Your task to perform on an android device: all mails in gmail Image 0: 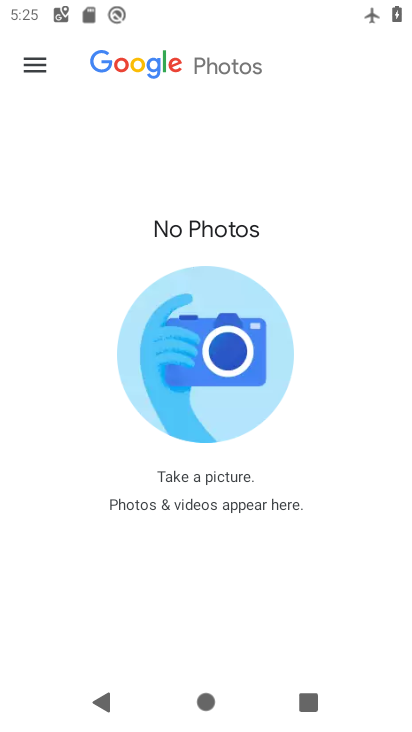
Step 0: press home button
Your task to perform on an android device: all mails in gmail Image 1: 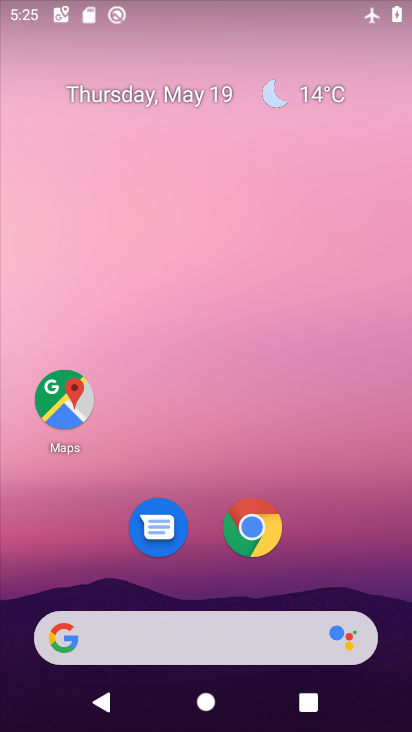
Step 1: drag from (341, 538) to (141, 11)
Your task to perform on an android device: all mails in gmail Image 2: 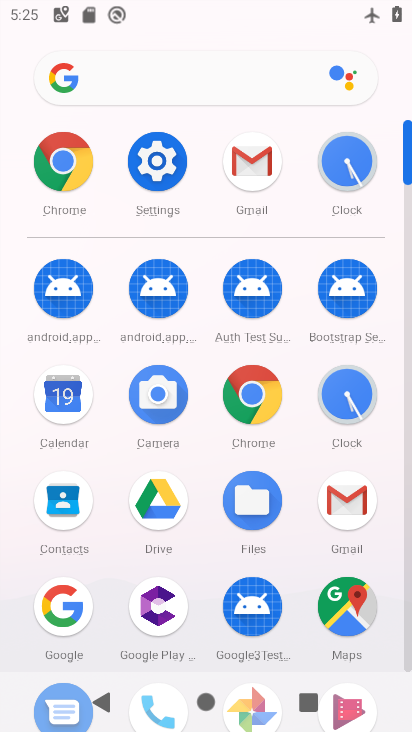
Step 2: click (352, 497)
Your task to perform on an android device: all mails in gmail Image 3: 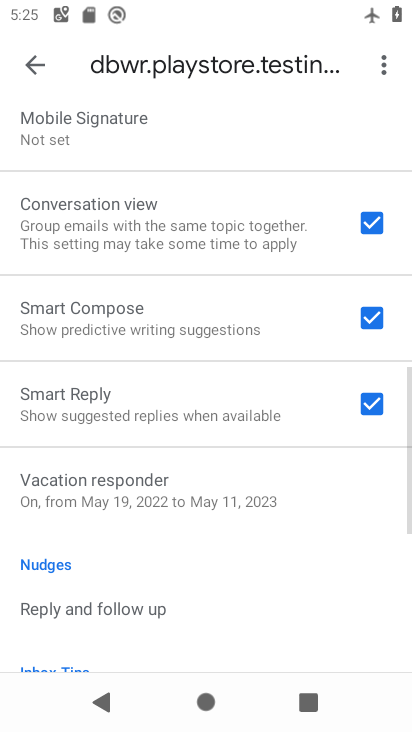
Step 3: click (36, 78)
Your task to perform on an android device: all mails in gmail Image 4: 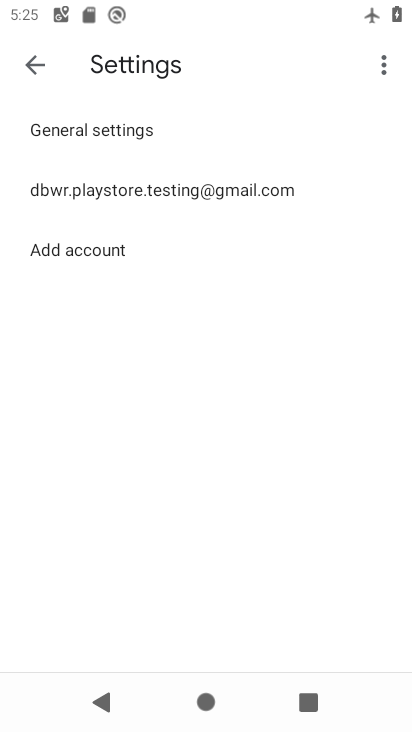
Step 4: click (31, 78)
Your task to perform on an android device: all mails in gmail Image 5: 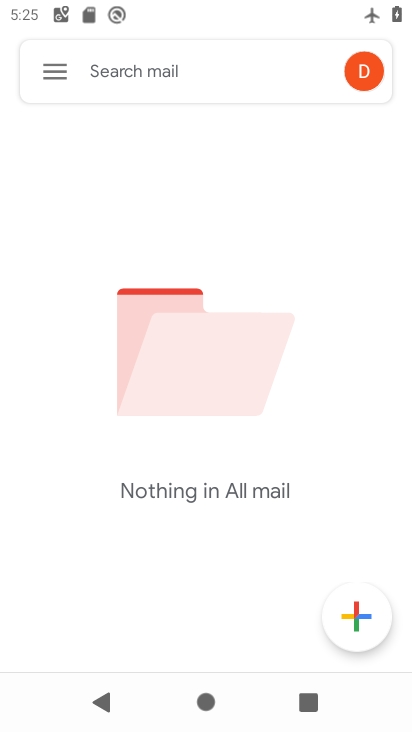
Step 5: click (56, 71)
Your task to perform on an android device: all mails in gmail Image 6: 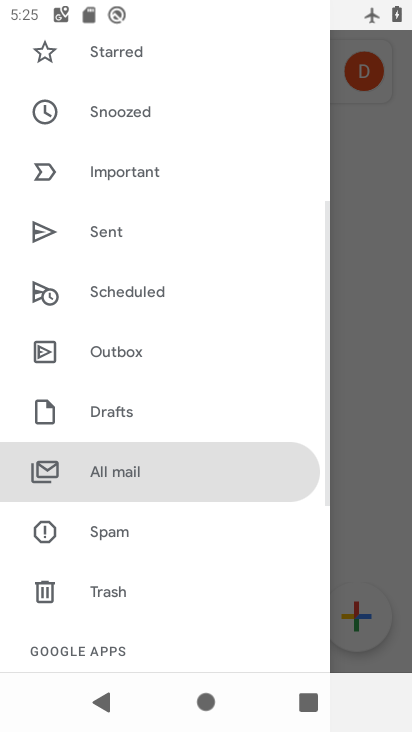
Step 6: click (153, 474)
Your task to perform on an android device: all mails in gmail Image 7: 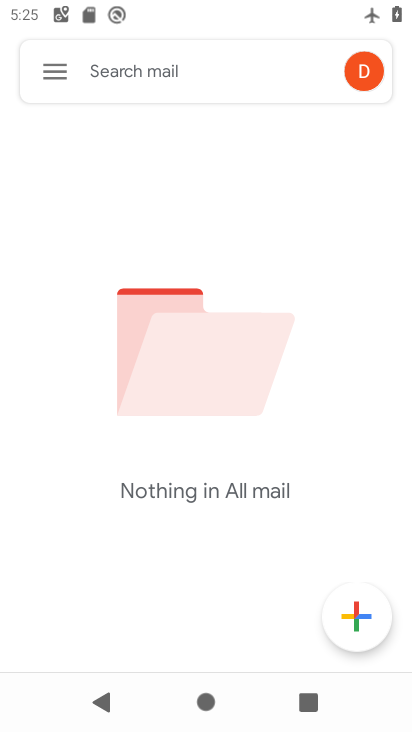
Step 7: task complete